Your task to perform on an android device: Go to Wikipedia Image 0: 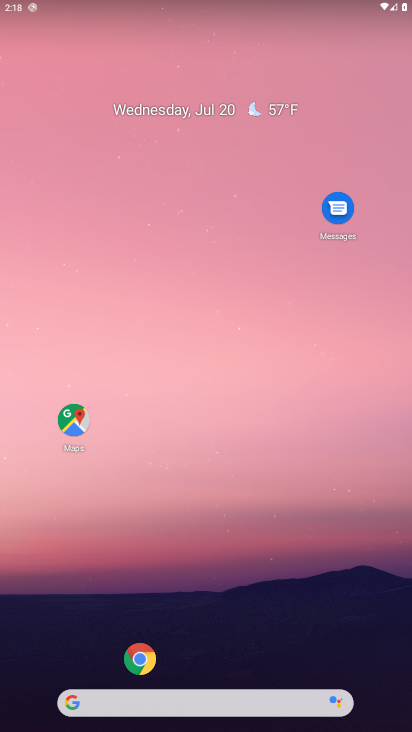
Step 0: click (108, 709)
Your task to perform on an android device: Go to Wikipedia Image 1: 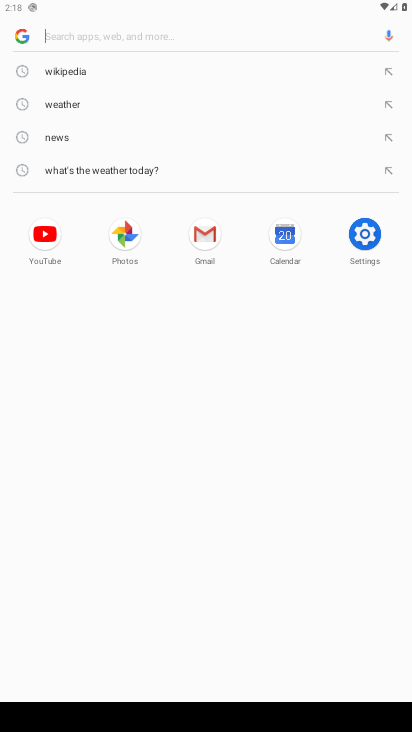
Step 1: click (52, 73)
Your task to perform on an android device: Go to Wikipedia Image 2: 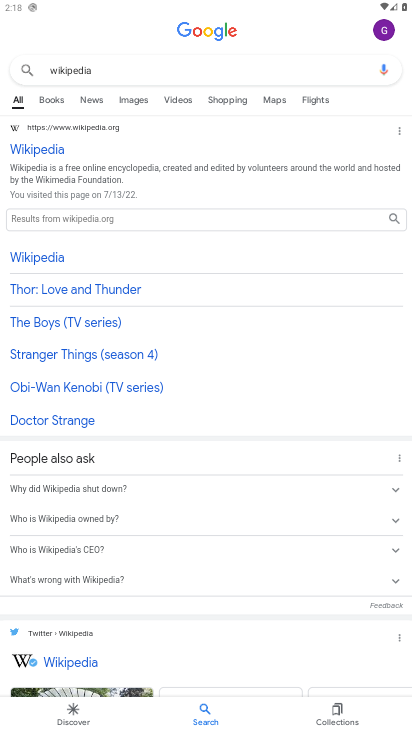
Step 2: task complete